Your task to perform on an android device: turn on airplane mode Image 0: 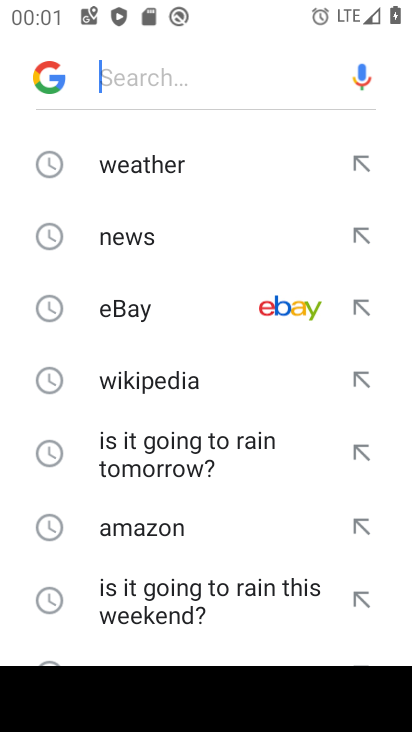
Step 0: press home button
Your task to perform on an android device: turn on airplane mode Image 1: 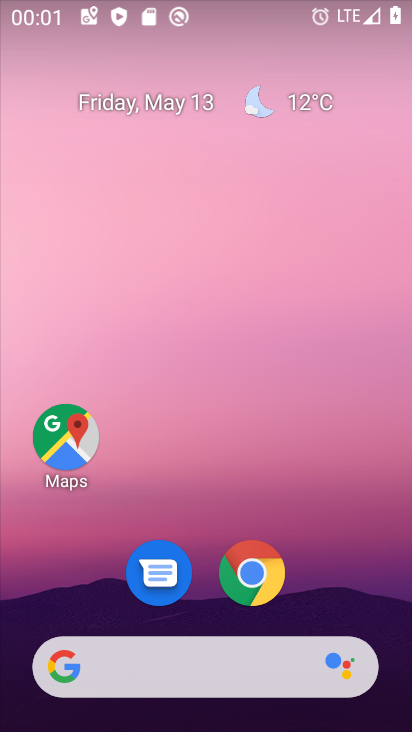
Step 1: drag from (206, 695) to (370, 158)
Your task to perform on an android device: turn on airplane mode Image 2: 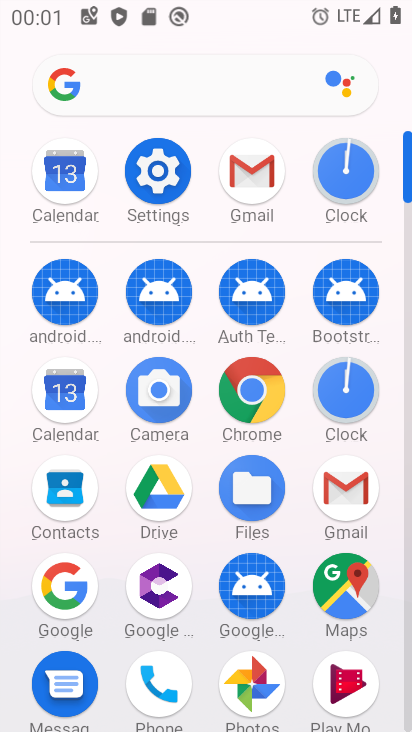
Step 2: click (154, 182)
Your task to perform on an android device: turn on airplane mode Image 3: 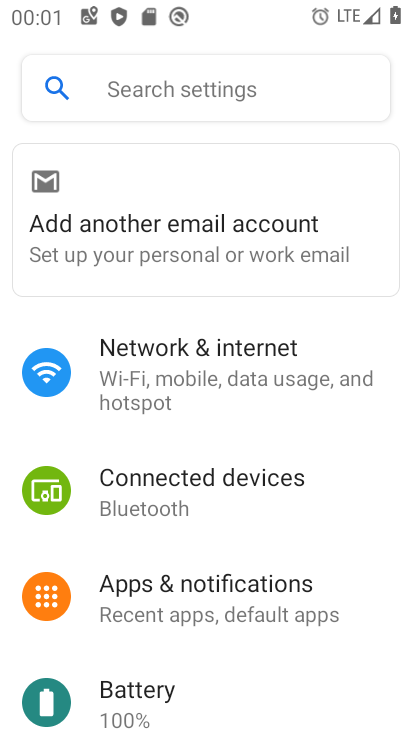
Step 3: click (217, 363)
Your task to perform on an android device: turn on airplane mode Image 4: 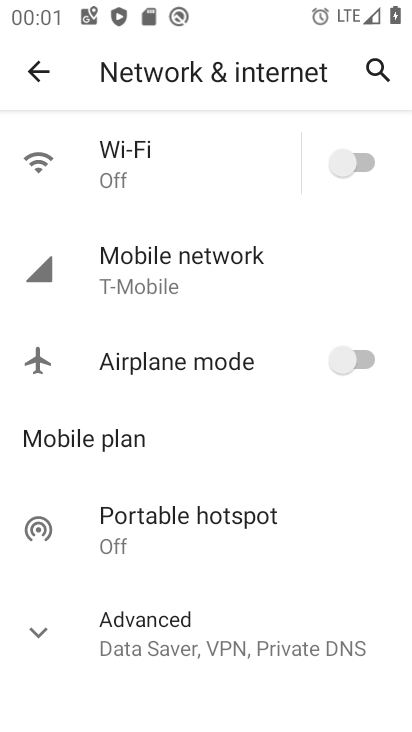
Step 4: click (357, 356)
Your task to perform on an android device: turn on airplane mode Image 5: 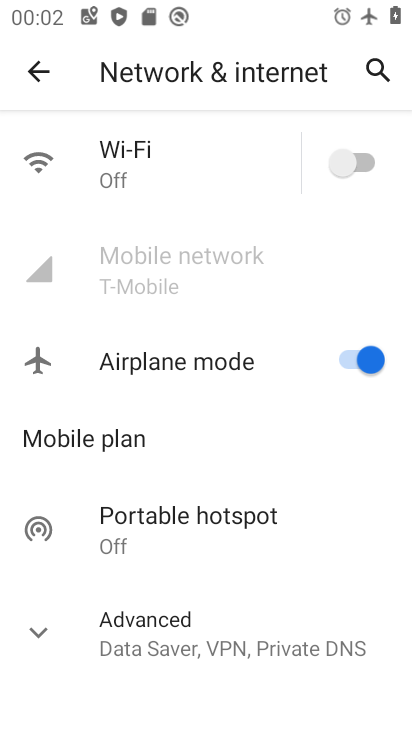
Step 5: task complete